Your task to perform on an android device: change your default location settings in chrome Image 0: 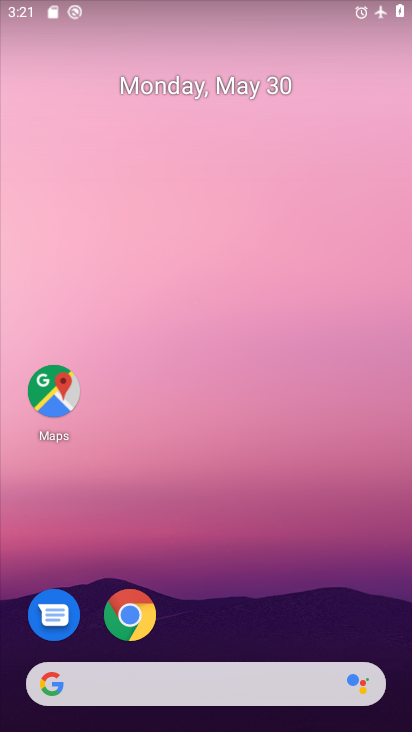
Step 0: click (140, 614)
Your task to perform on an android device: change your default location settings in chrome Image 1: 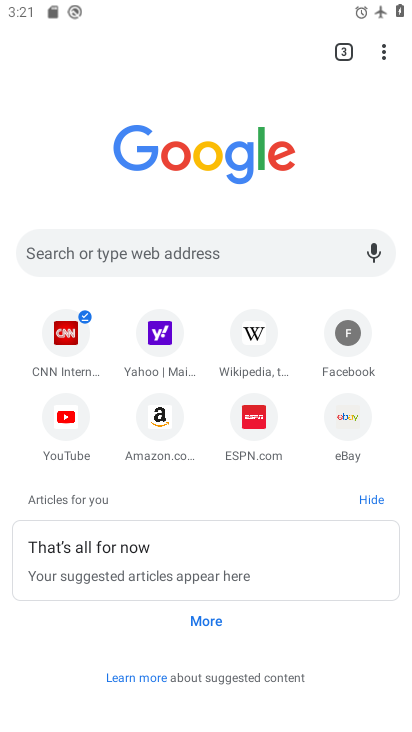
Step 1: click (376, 54)
Your task to perform on an android device: change your default location settings in chrome Image 2: 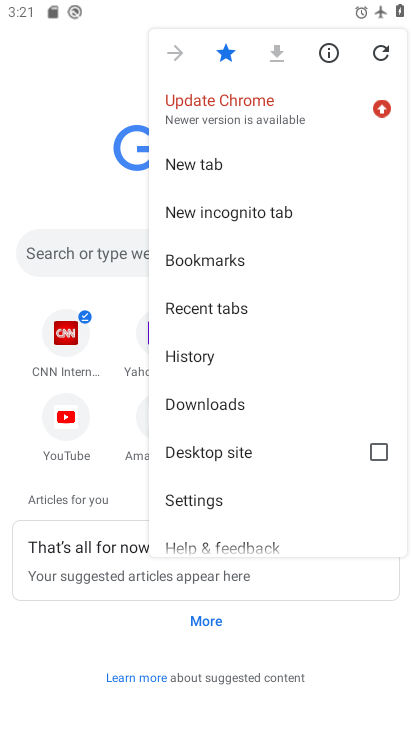
Step 2: click (211, 496)
Your task to perform on an android device: change your default location settings in chrome Image 3: 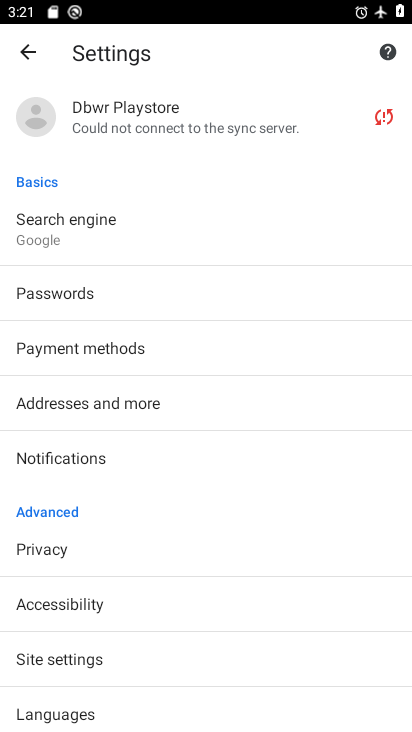
Step 3: click (169, 656)
Your task to perform on an android device: change your default location settings in chrome Image 4: 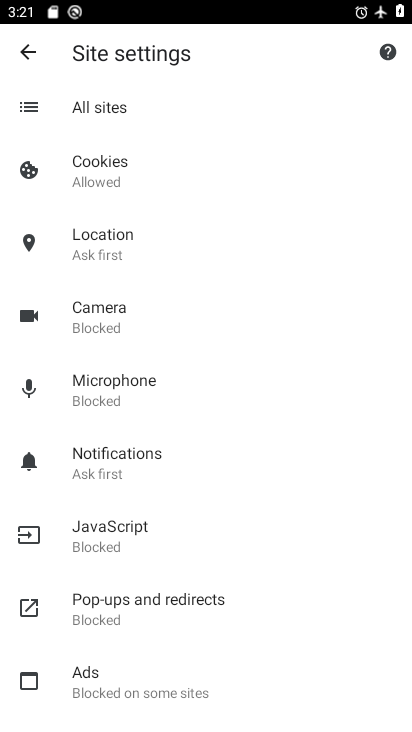
Step 4: click (177, 243)
Your task to perform on an android device: change your default location settings in chrome Image 5: 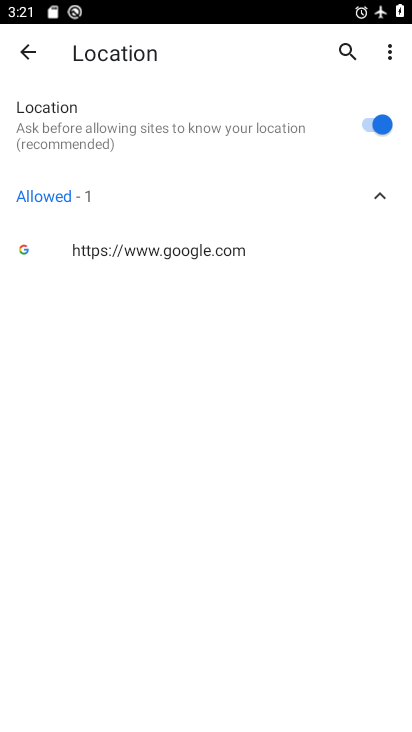
Step 5: click (360, 109)
Your task to perform on an android device: change your default location settings in chrome Image 6: 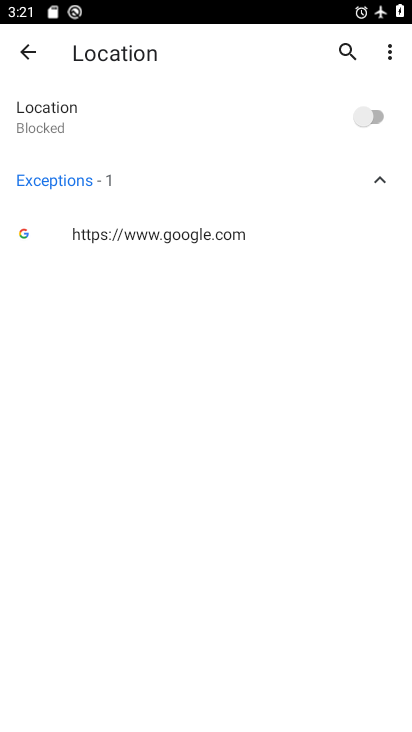
Step 6: task complete